Your task to perform on an android device: turn on showing notifications on the lock screen Image 0: 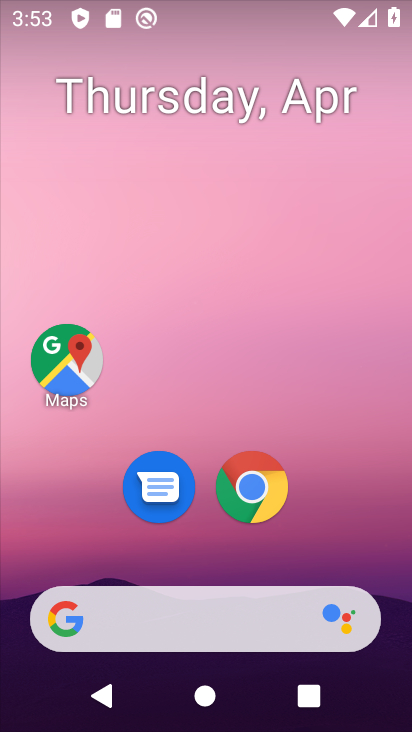
Step 0: drag from (205, 572) to (230, 108)
Your task to perform on an android device: turn on showing notifications on the lock screen Image 1: 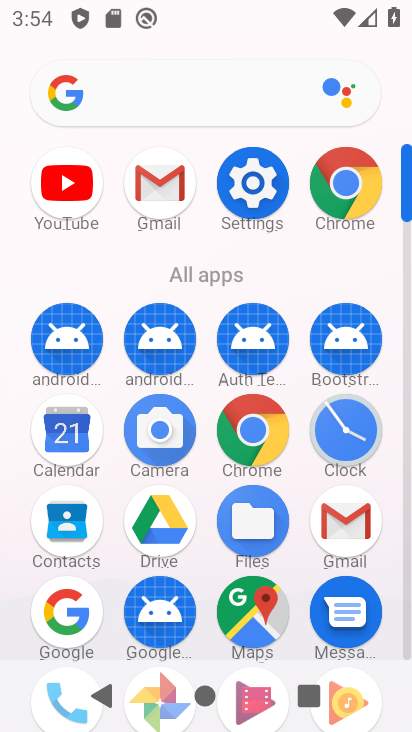
Step 1: click (245, 201)
Your task to perform on an android device: turn on showing notifications on the lock screen Image 2: 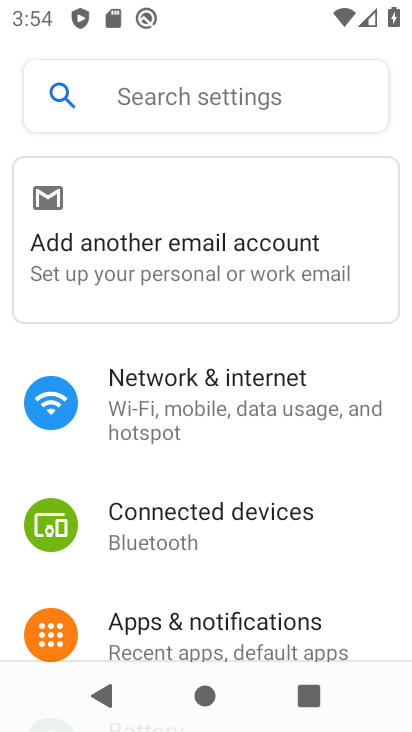
Step 2: drag from (220, 620) to (234, 282)
Your task to perform on an android device: turn on showing notifications on the lock screen Image 3: 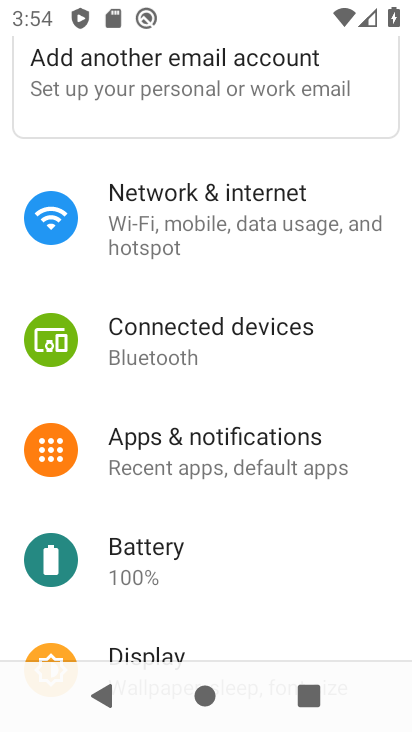
Step 3: click (234, 456)
Your task to perform on an android device: turn on showing notifications on the lock screen Image 4: 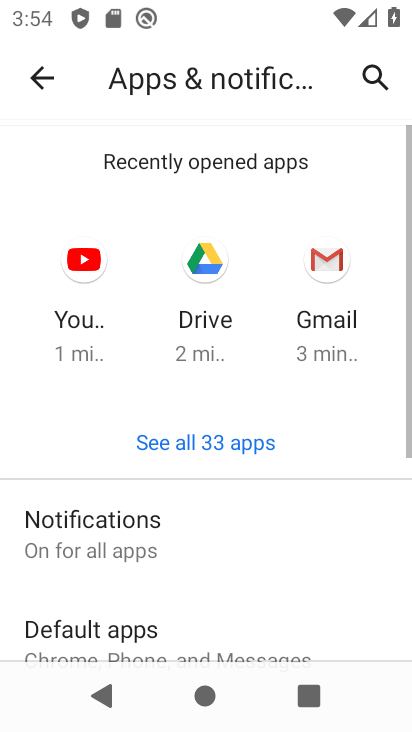
Step 4: drag from (199, 615) to (247, 254)
Your task to perform on an android device: turn on showing notifications on the lock screen Image 5: 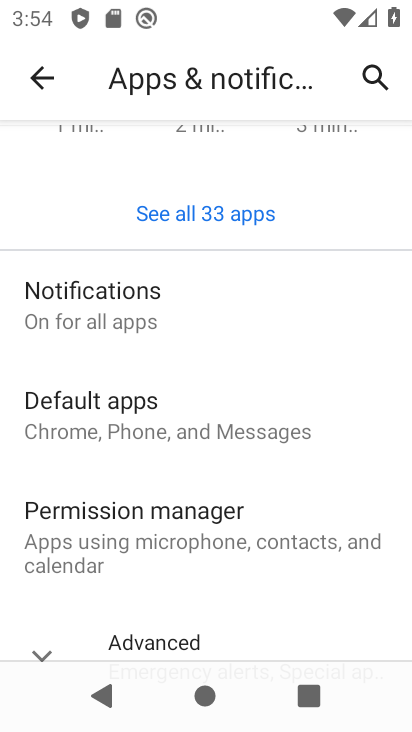
Step 5: drag from (279, 569) to (291, 336)
Your task to perform on an android device: turn on showing notifications on the lock screen Image 6: 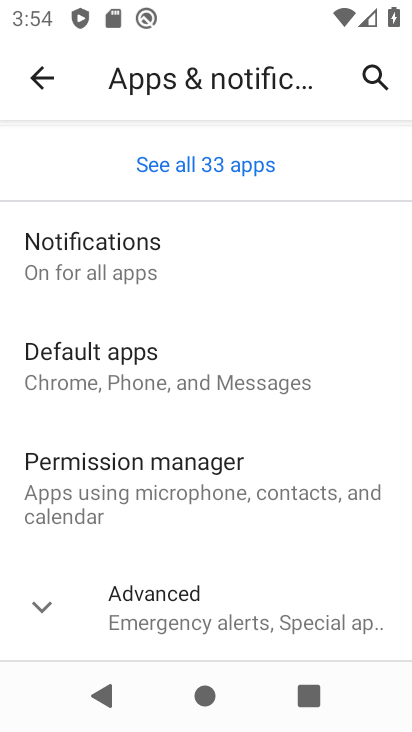
Step 6: click (169, 270)
Your task to perform on an android device: turn on showing notifications on the lock screen Image 7: 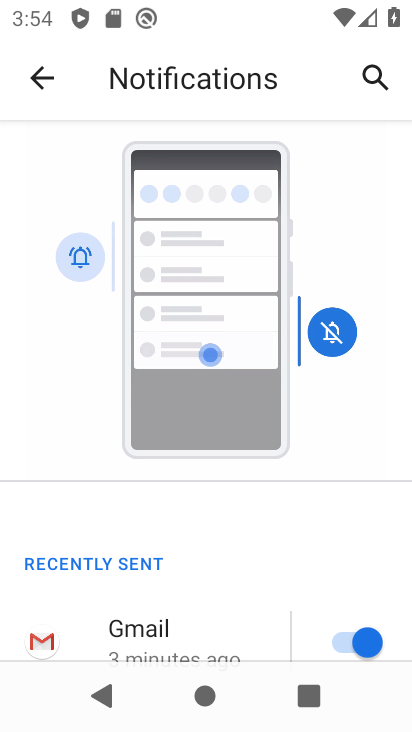
Step 7: drag from (257, 566) to (302, 208)
Your task to perform on an android device: turn on showing notifications on the lock screen Image 8: 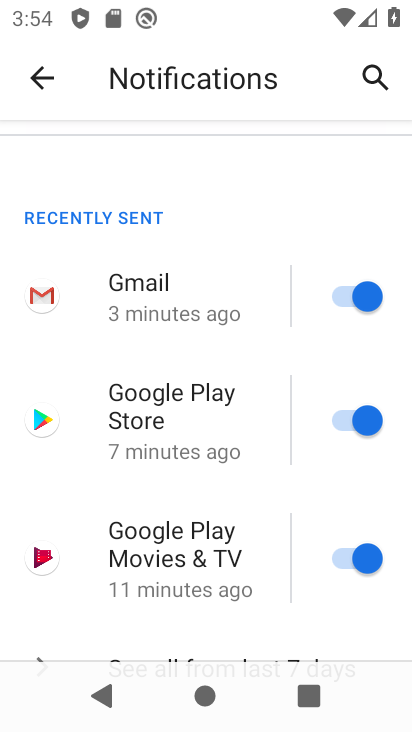
Step 8: drag from (245, 574) to (262, 182)
Your task to perform on an android device: turn on showing notifications on the lock screen Image 9: 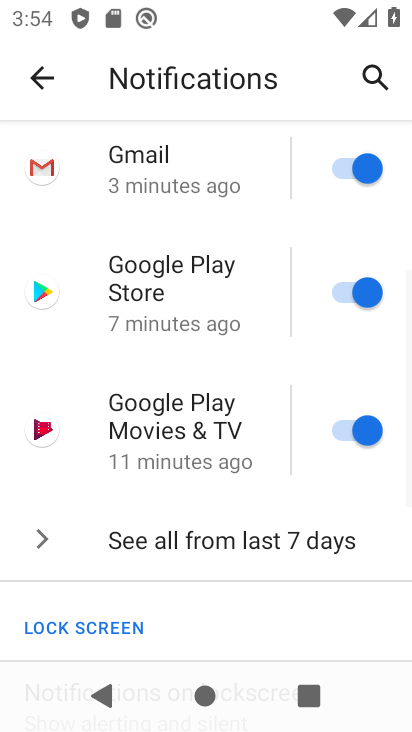
Step 9: drag from (237, 601) to (243, 222)
Your task to perform on an android device: turn on showing notifications on the lock screen Image 10: 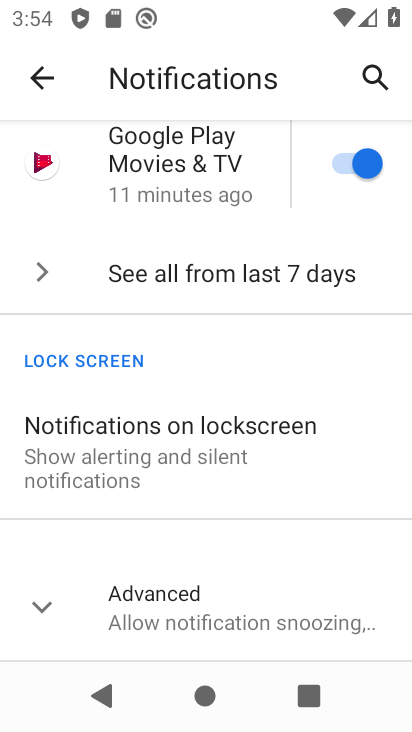
Step 10: click (186, 600)
Your task to perform on an android device: turn on showing notifications on the lock screen Image 11: 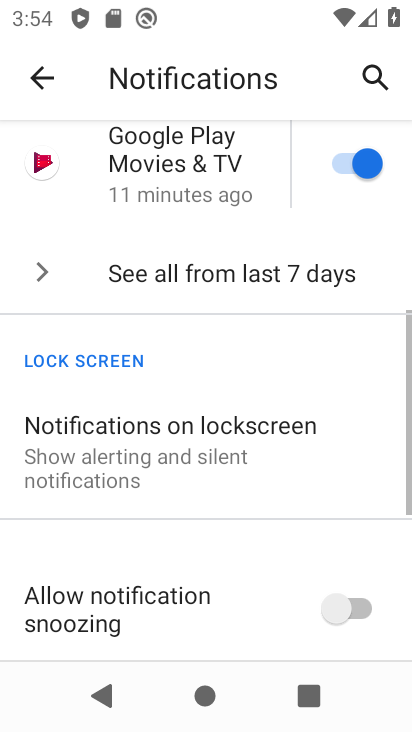
Step 11: click (185, 478)
Your task to perform on an android device: turn on showing notifications on the lock screen Image 12: 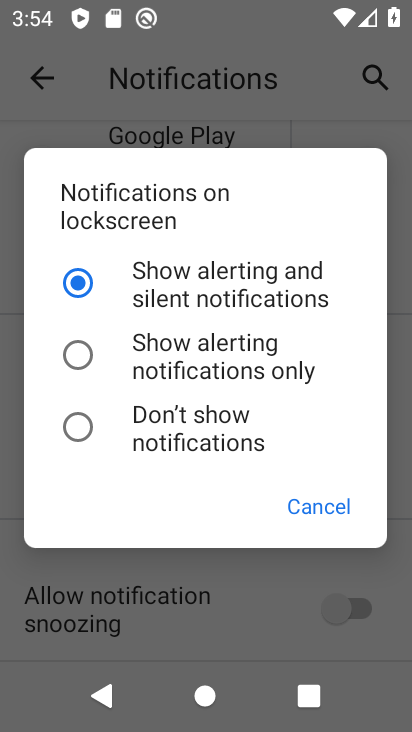
Step 12: task complete